Your task to perform on an android device: Go to Maps Image 0: 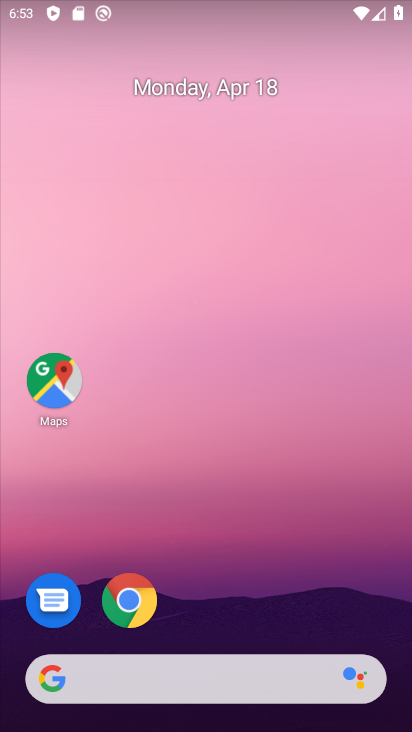
Step 0: click (51, 388)
Your task to perform on an android device: Go to Maps Image 1: 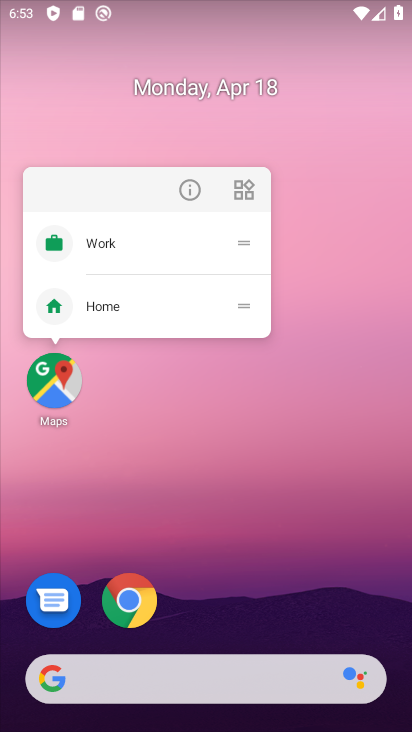
Step 1: click (198, 414)
Your task to perform on an android device: Go to Maps Image 2: 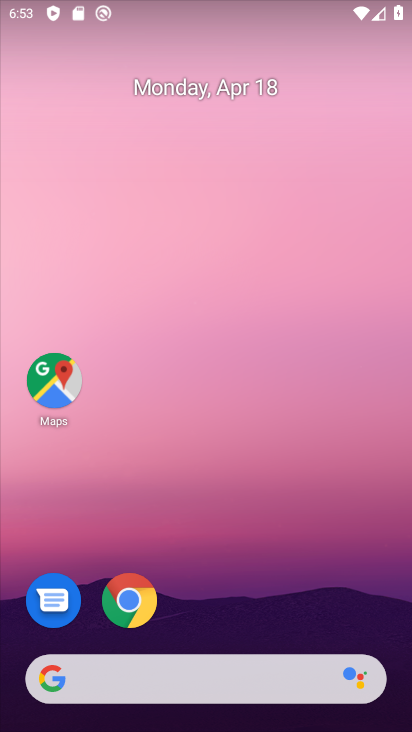
Step 2: drag from (253, 633) to (374, 7)
Your task to perform on an android device: Go to Maps Image 3: 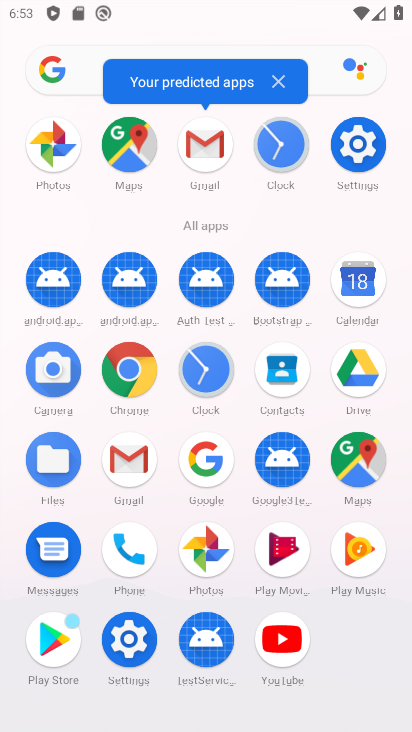
Step 3: click (119, 135)
Your task to perform on an android device: Go to Maps Image 4: 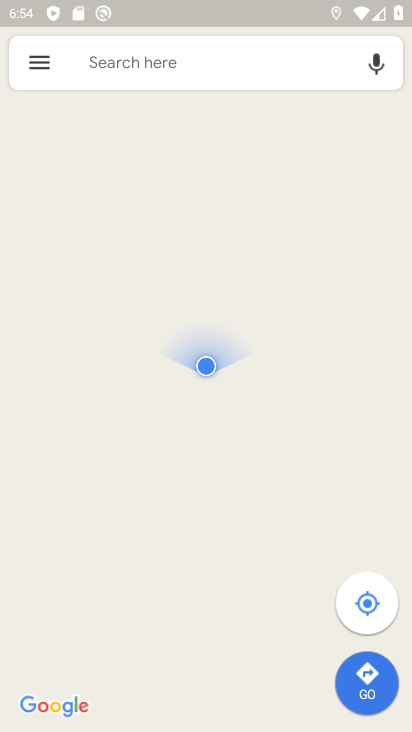
Step 4: task complete